Your task to perform on an android device: Open Wikipedia Image 0: 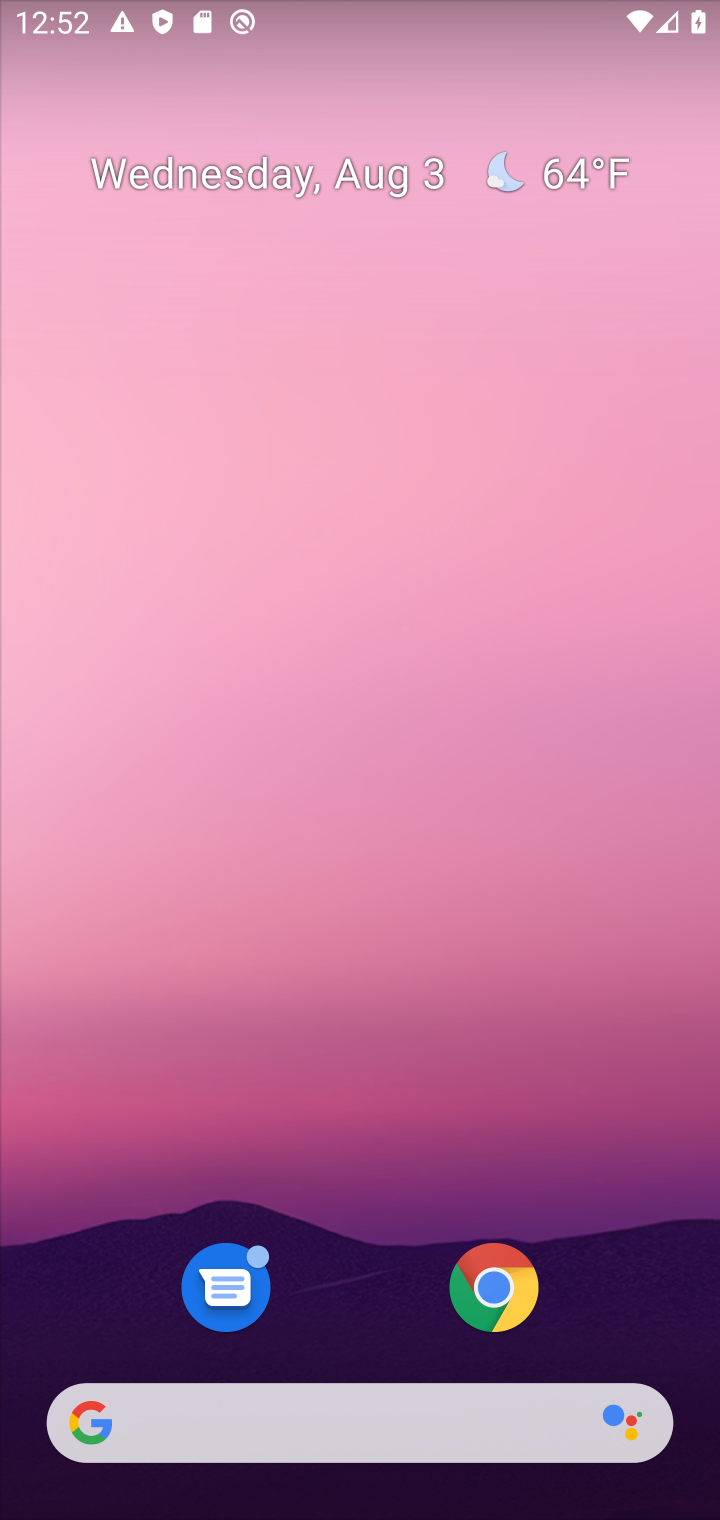
Step 0: drag from (383, 1094) to (444, 184)
Your task to perform on an android device: Open Wikipedia Image 1: 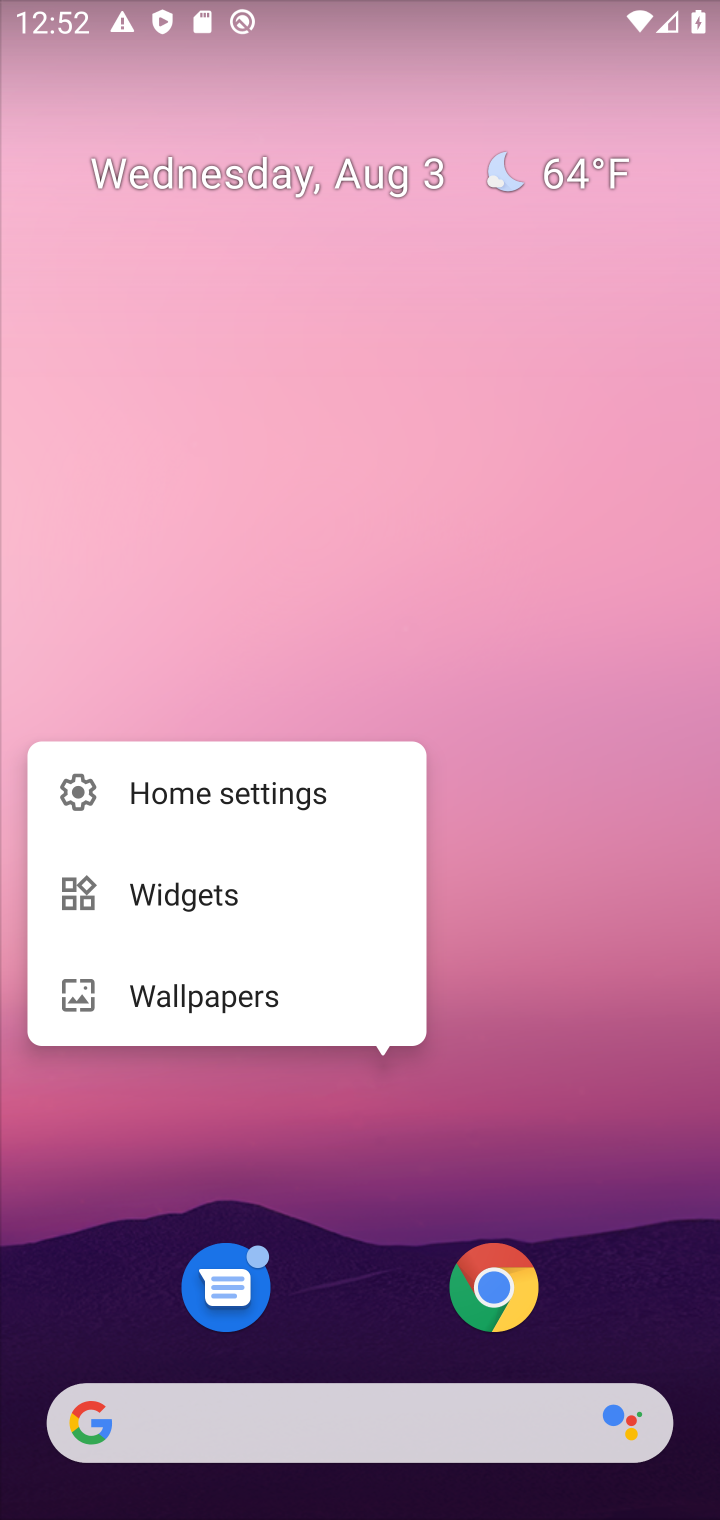
Step 1: click (555, 983)
Your task to perform on an android device: Open Wikipedia Image 2: 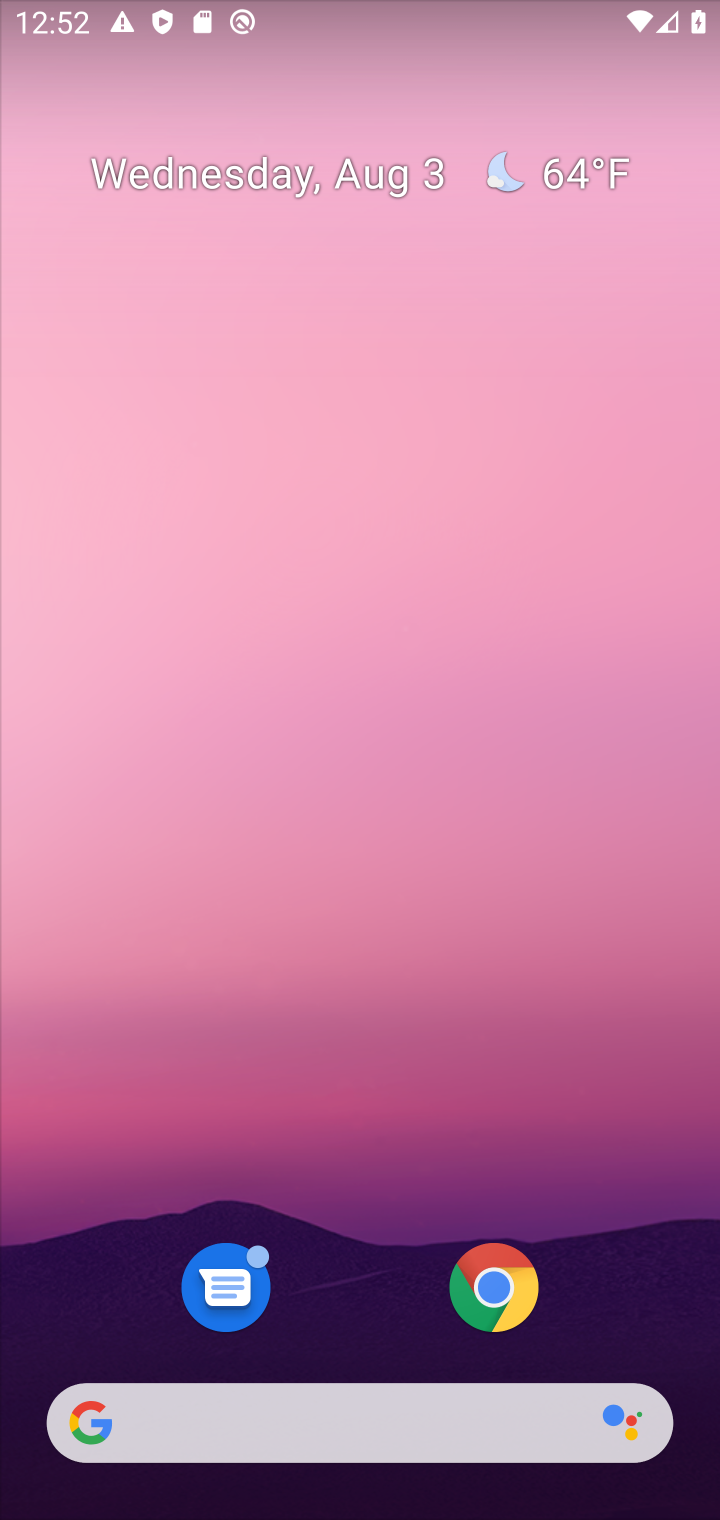
Step 2: drag from (334, 1149) to (360, 144)
Your task to perform on an android device: Open Wikipedia Image 3: 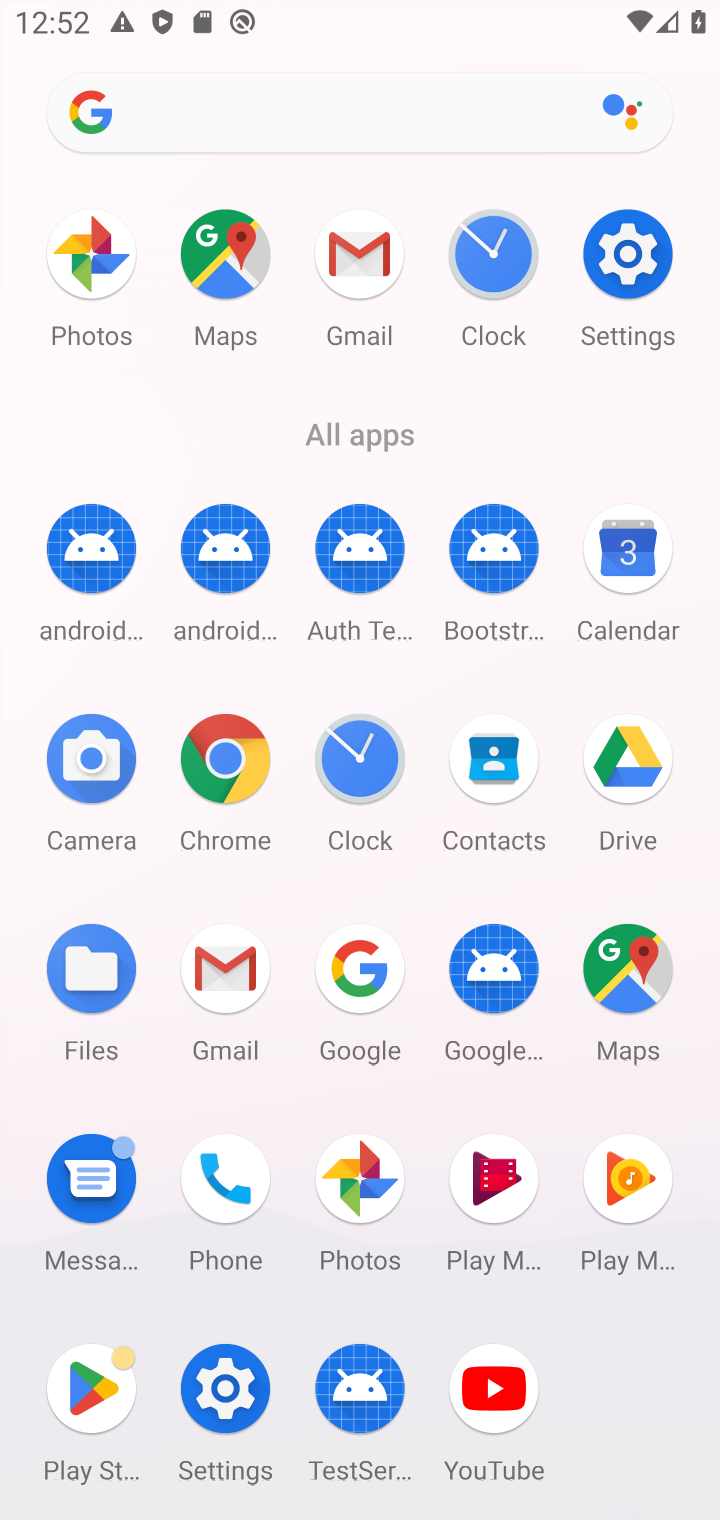
Step 3: click (220, 767)
Your task to perform on an android device: Open Wikipedia Image 4: 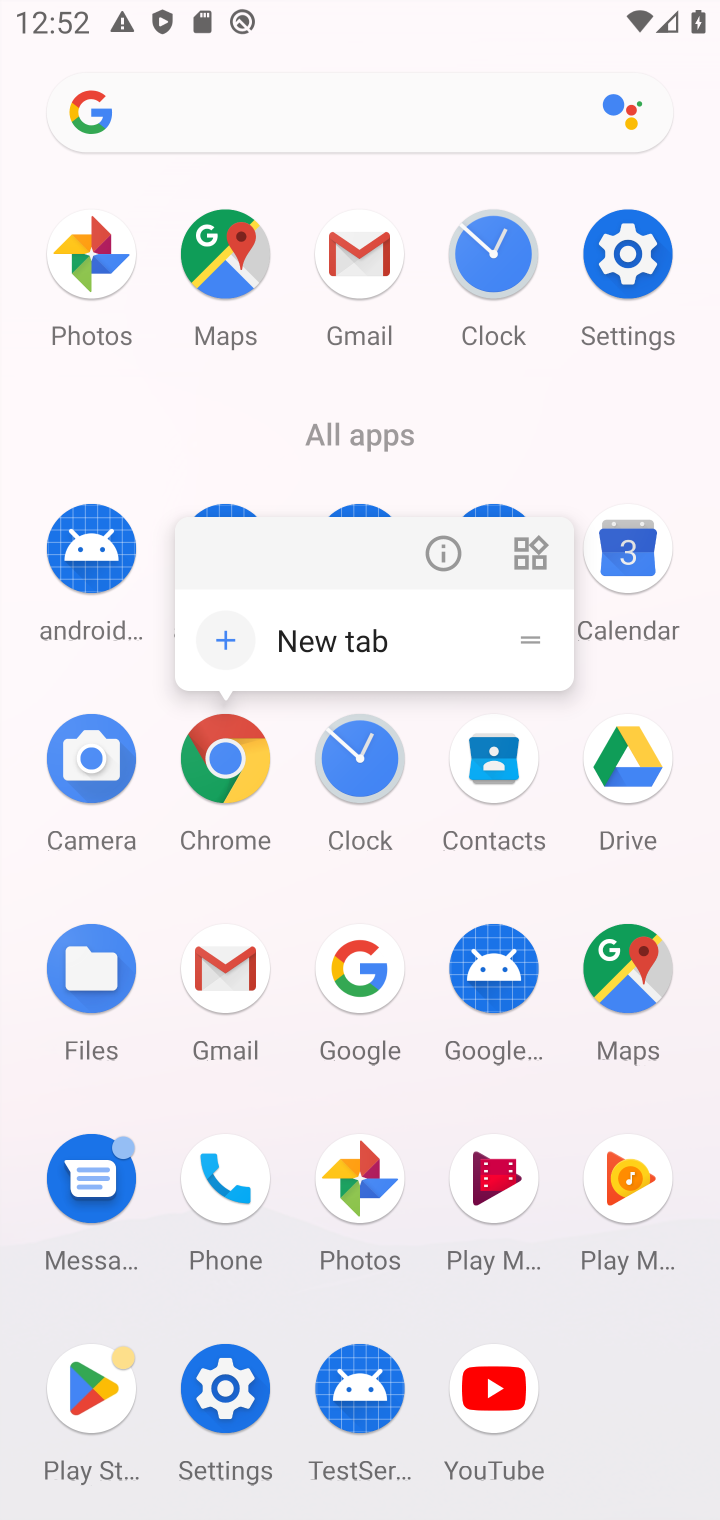
Step 4: click (255, 762)
Your task to perform on an android device: Open Wikipedia Image 5: 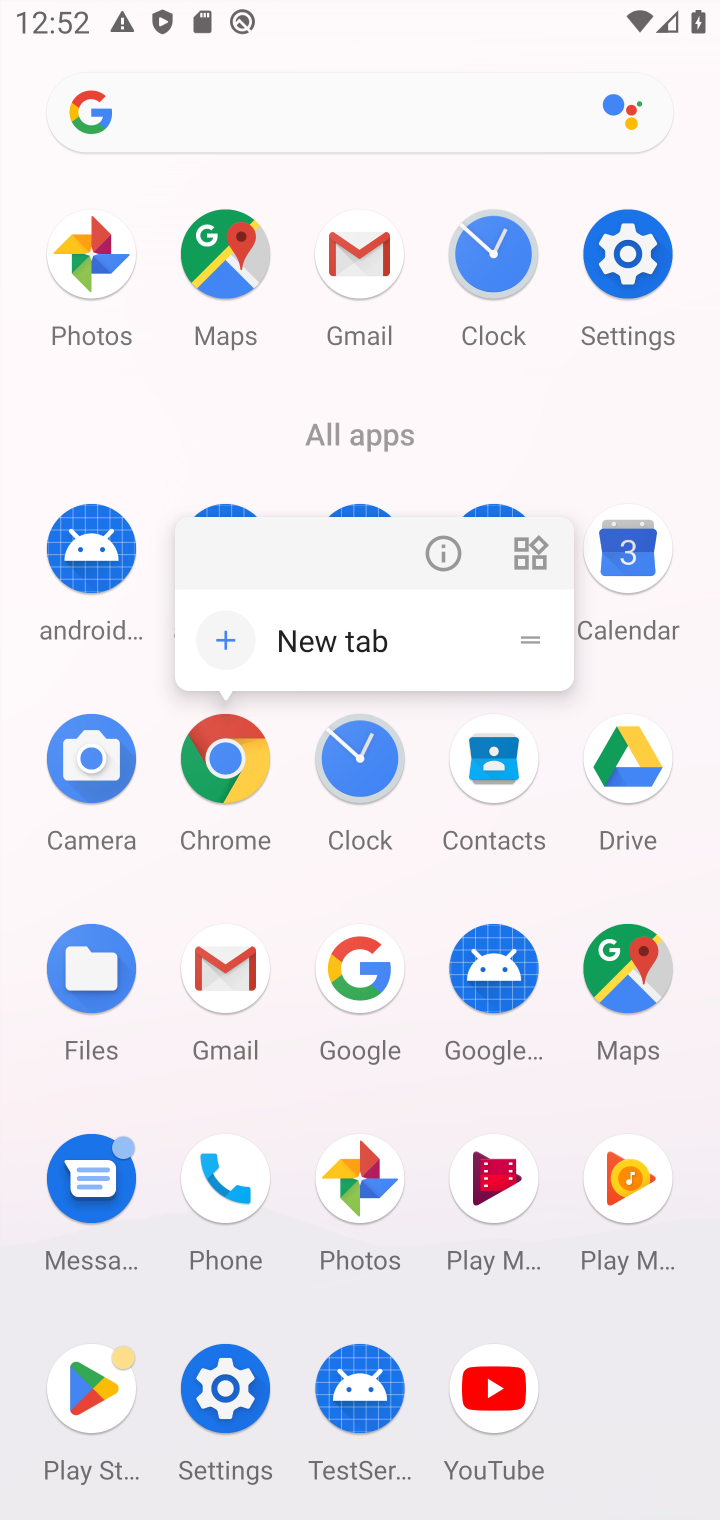
Step 5: click (236, 777)
Your task to perform on an android device: Open Wikipedia Image 6: 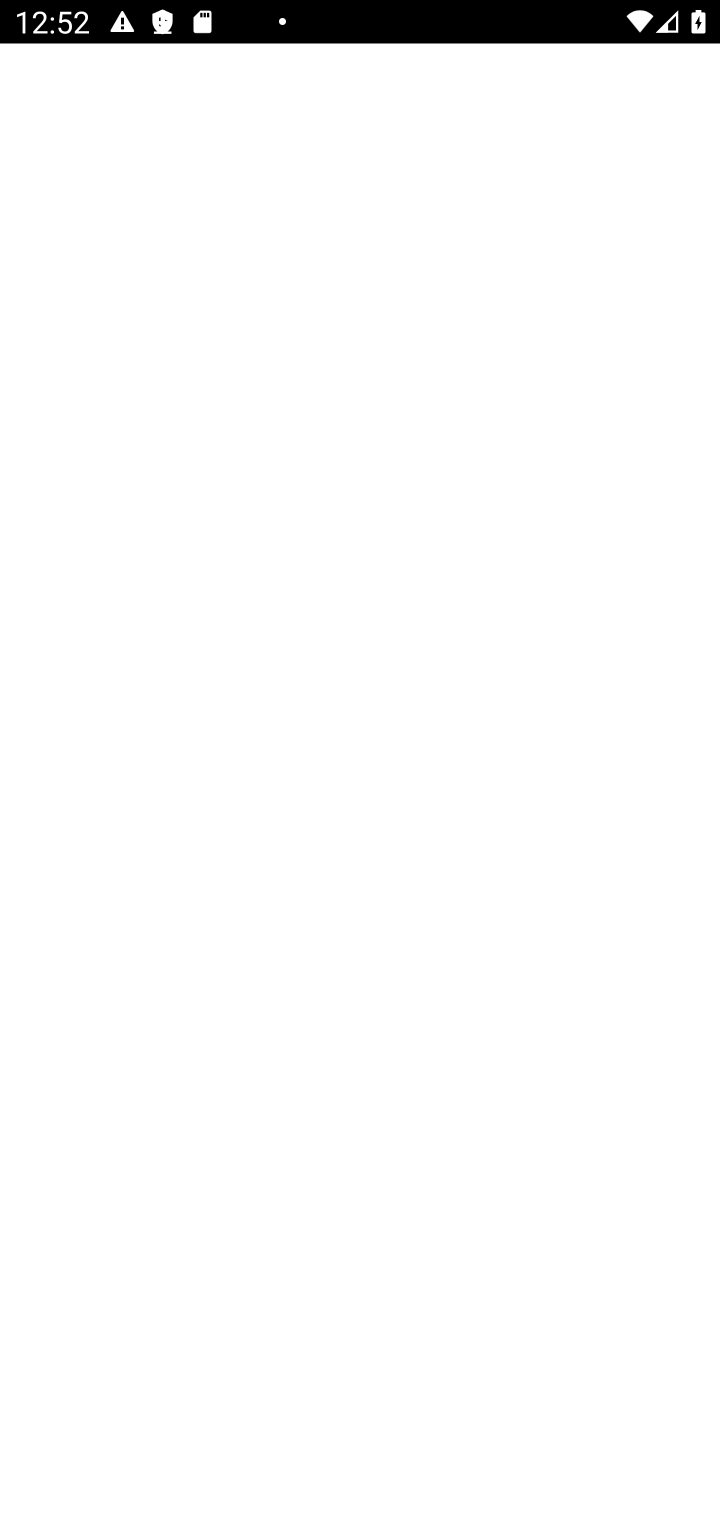
Step 6: click (234, 761)
Your task to perform on an android device: Open Wikipedia Image 7: 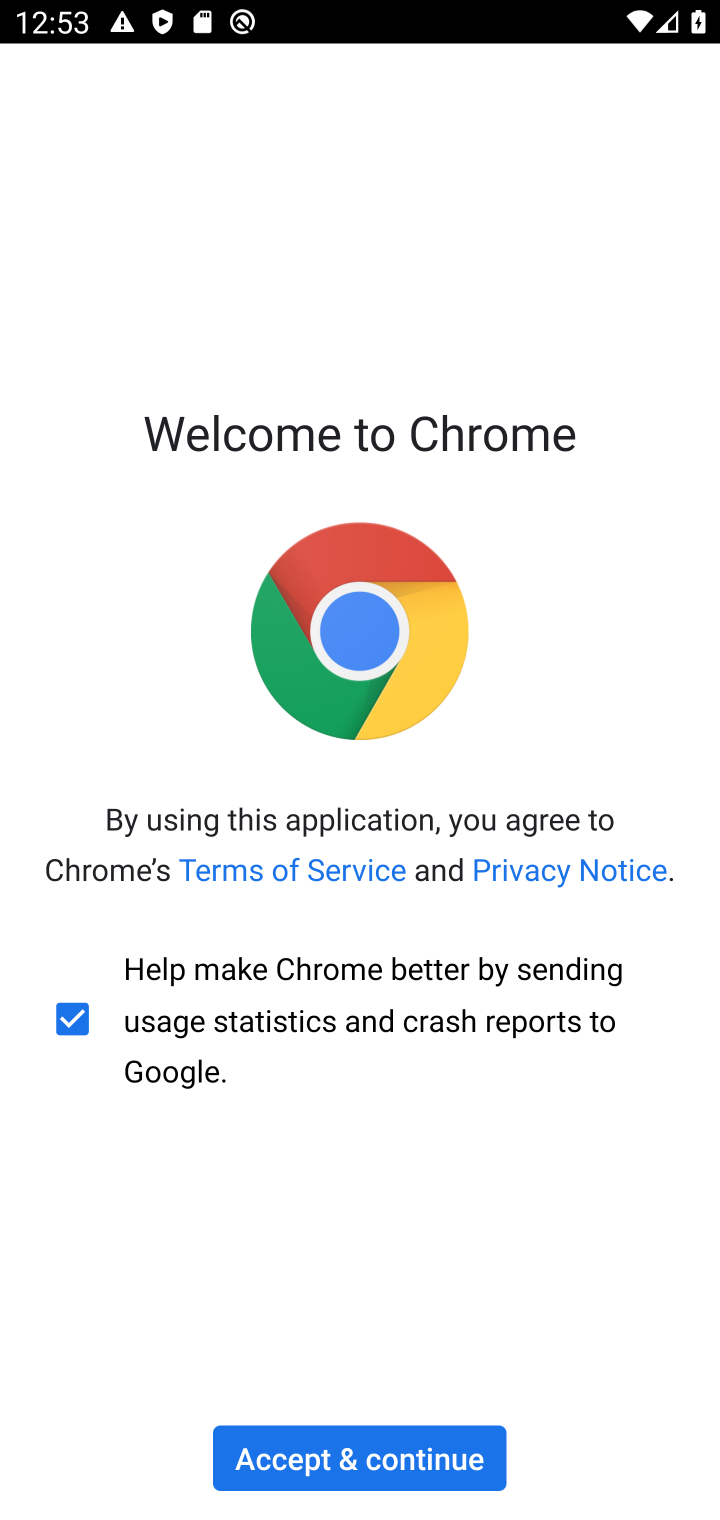
Step 7: click (341, 1471)
Your task to perform on an android device: Open Wikipedia Image 8: 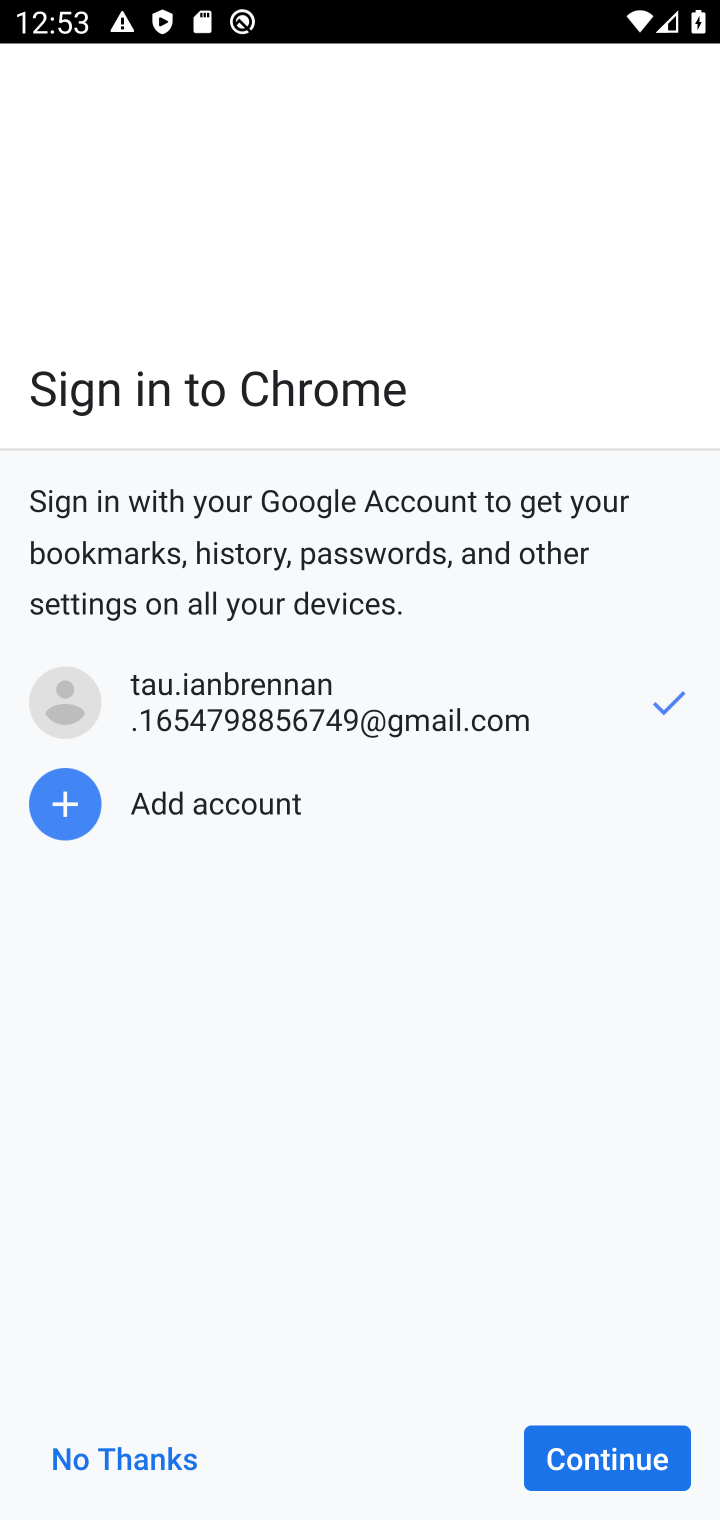
Step 8: click (606, 1452)
Your task to perform on an android device: Open Wikipedia Image 9: 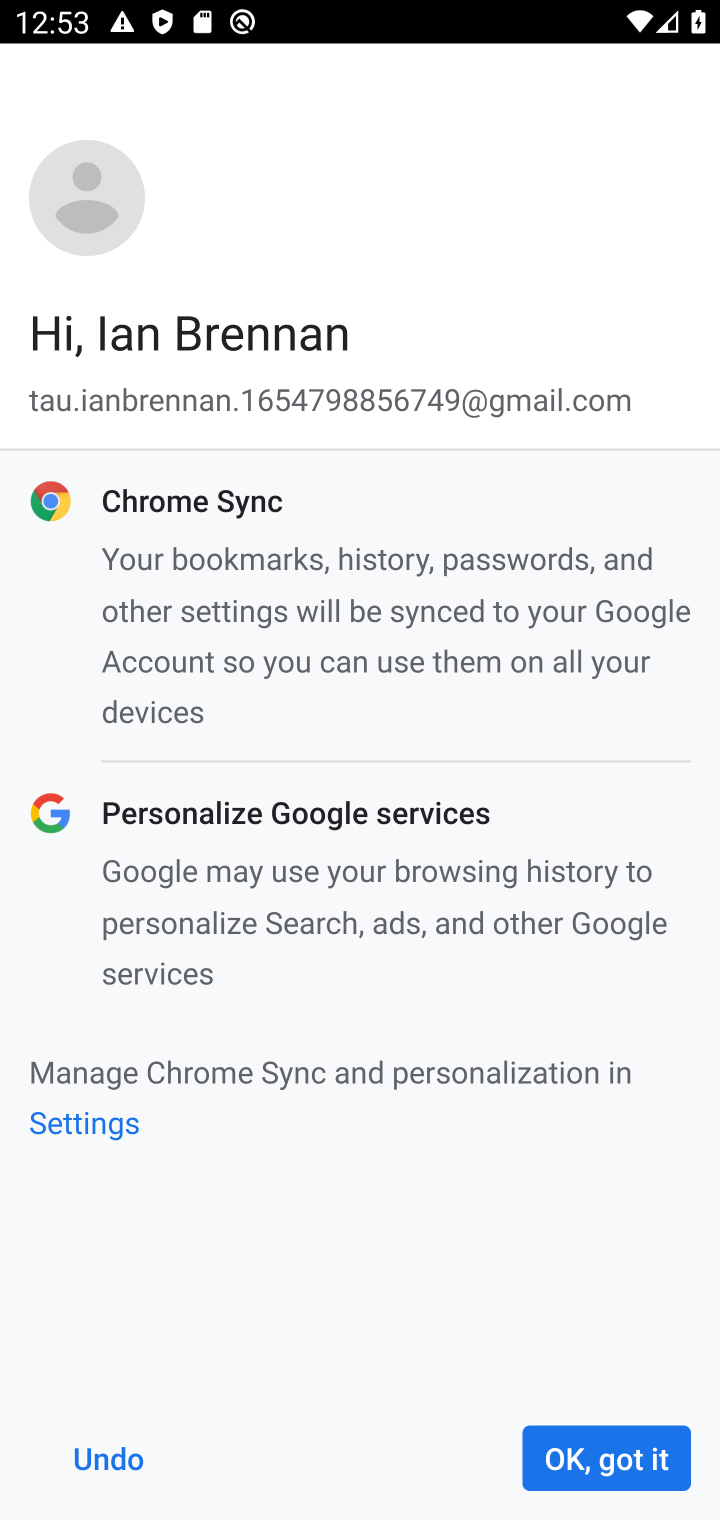
Step 9: click (601, 1469)
Your task to perform on an android device: Open Wikipedia Image 10: 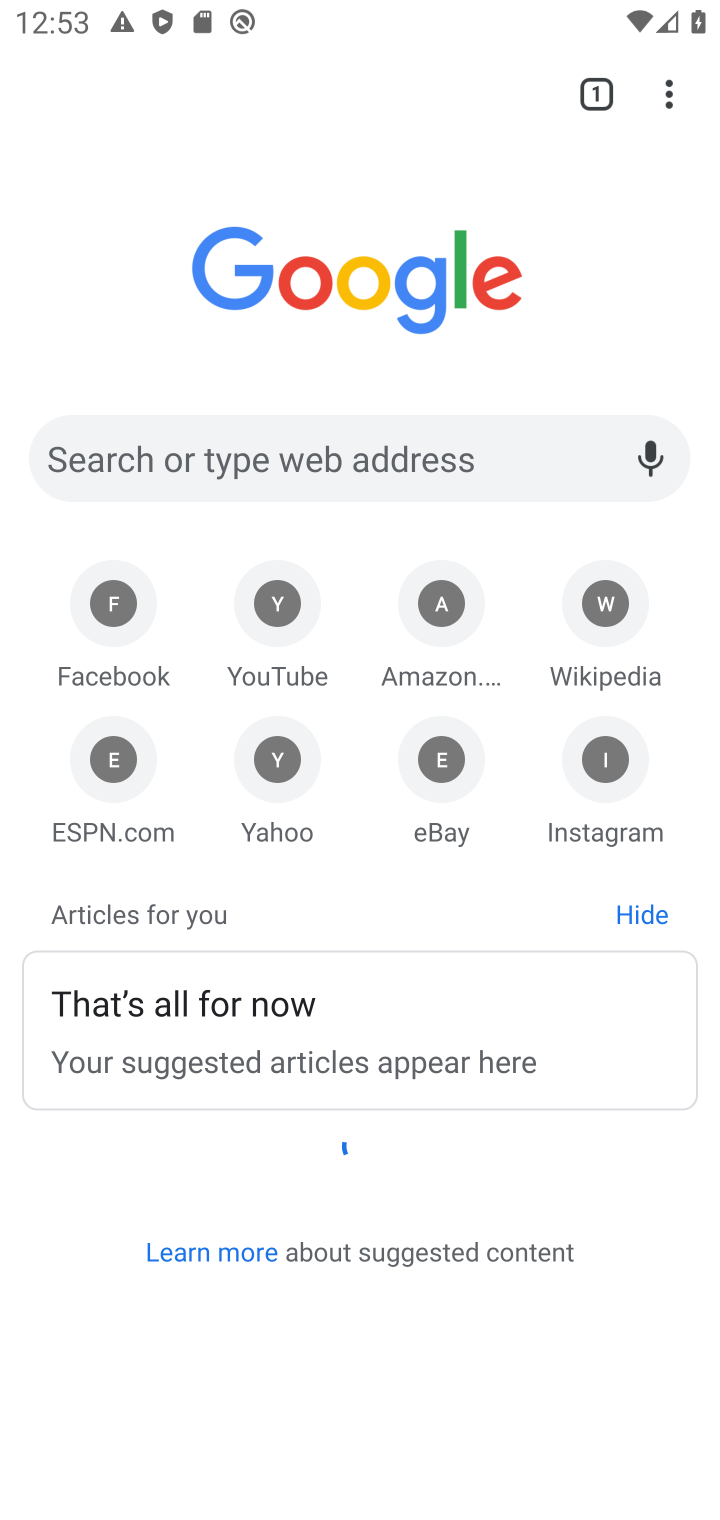
Step 10: click (320, 457)
Your task to perform on an android device: Open Wikipedia Image 11: 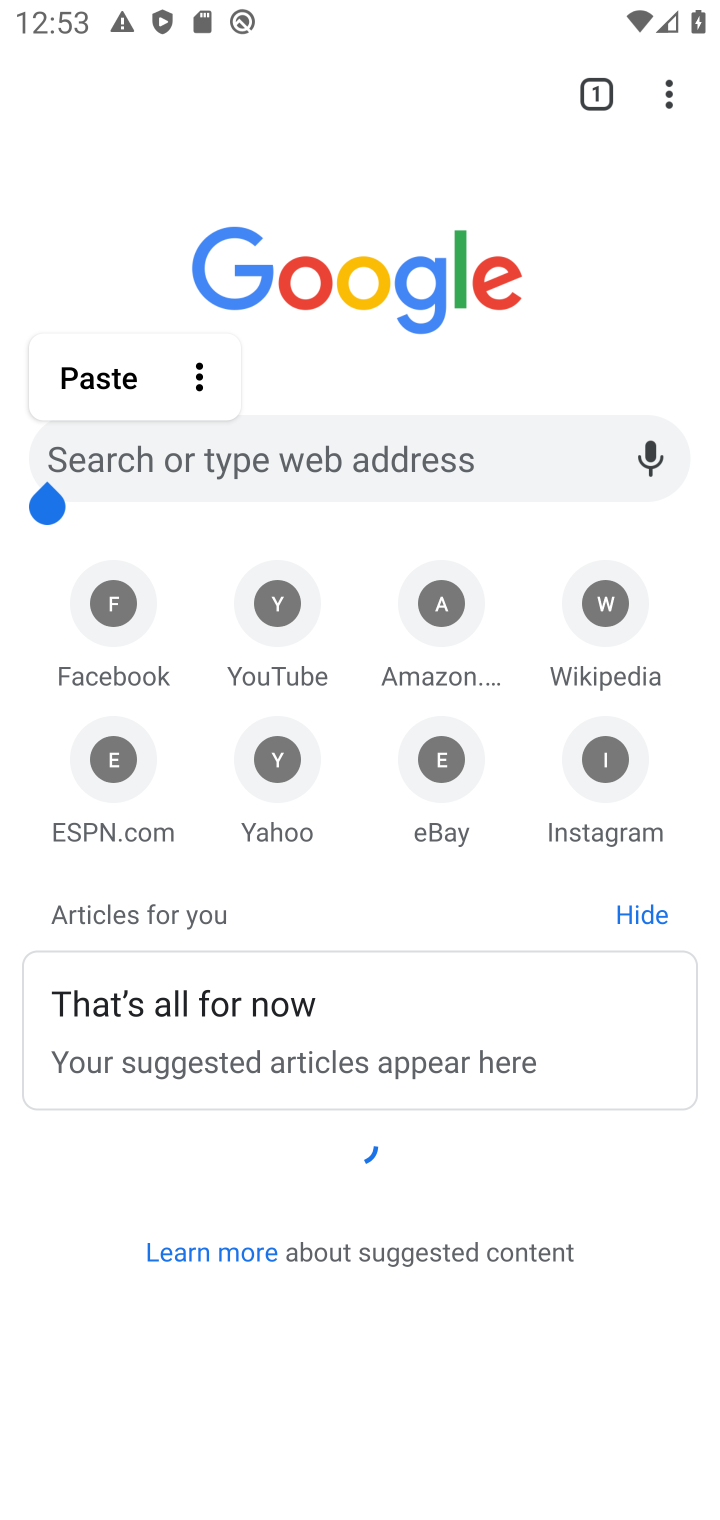
Step 11: click (507, 456)
Your task to perform on an android device: Open Wikipedia Image 12: 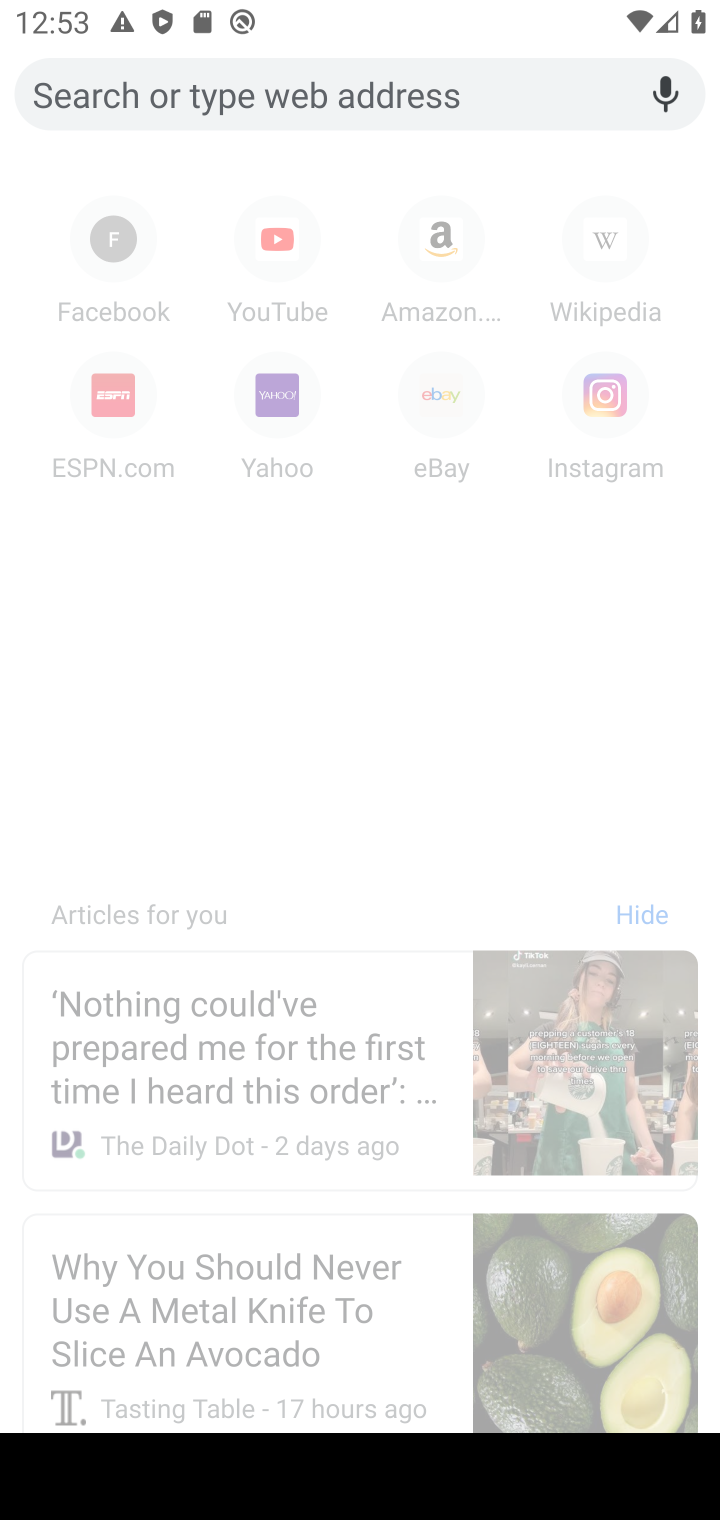
Step 12: type "wikipedia"
Your task to perform on an android device: Open Wikipedia Image 13: 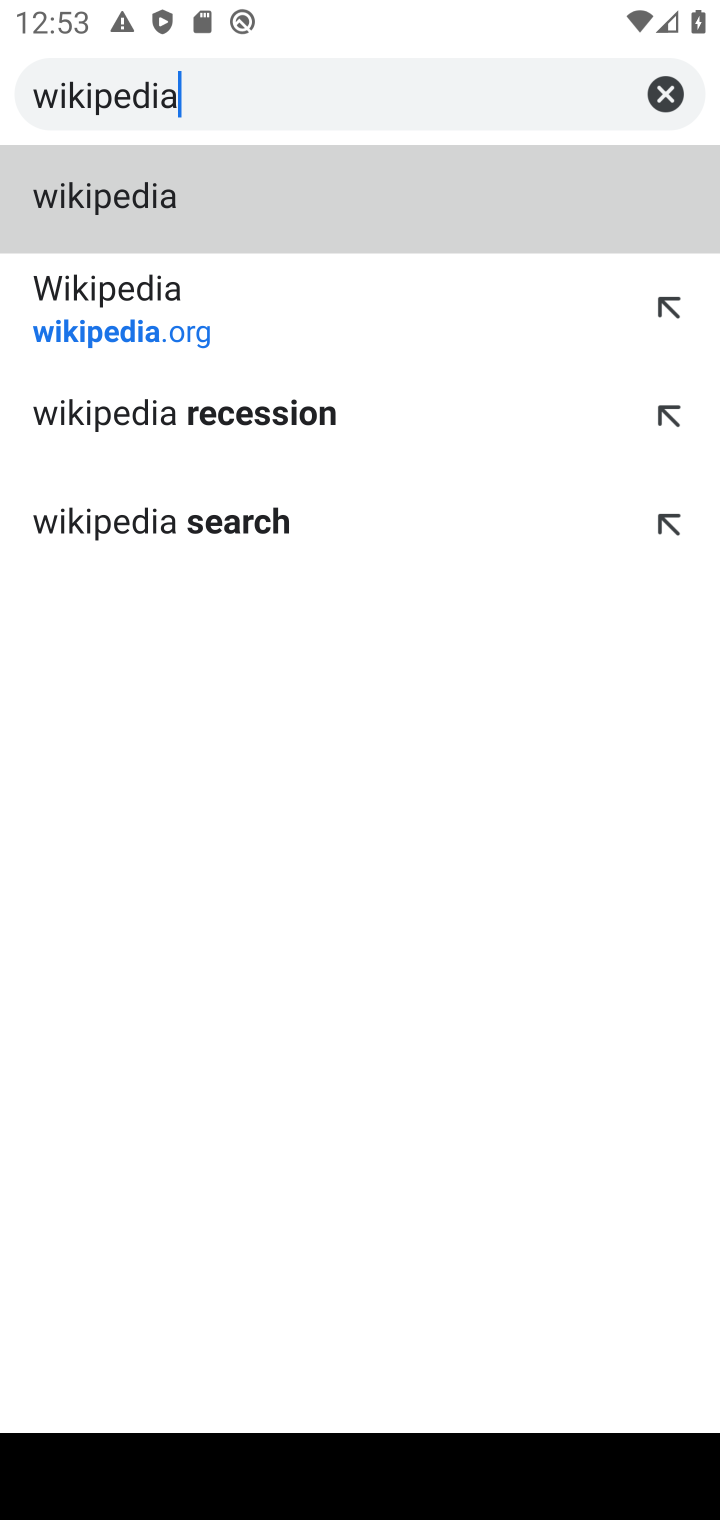
Step 13: click (375, 203)
Your task to perform on an android device: Open Wikipedia Image 14: 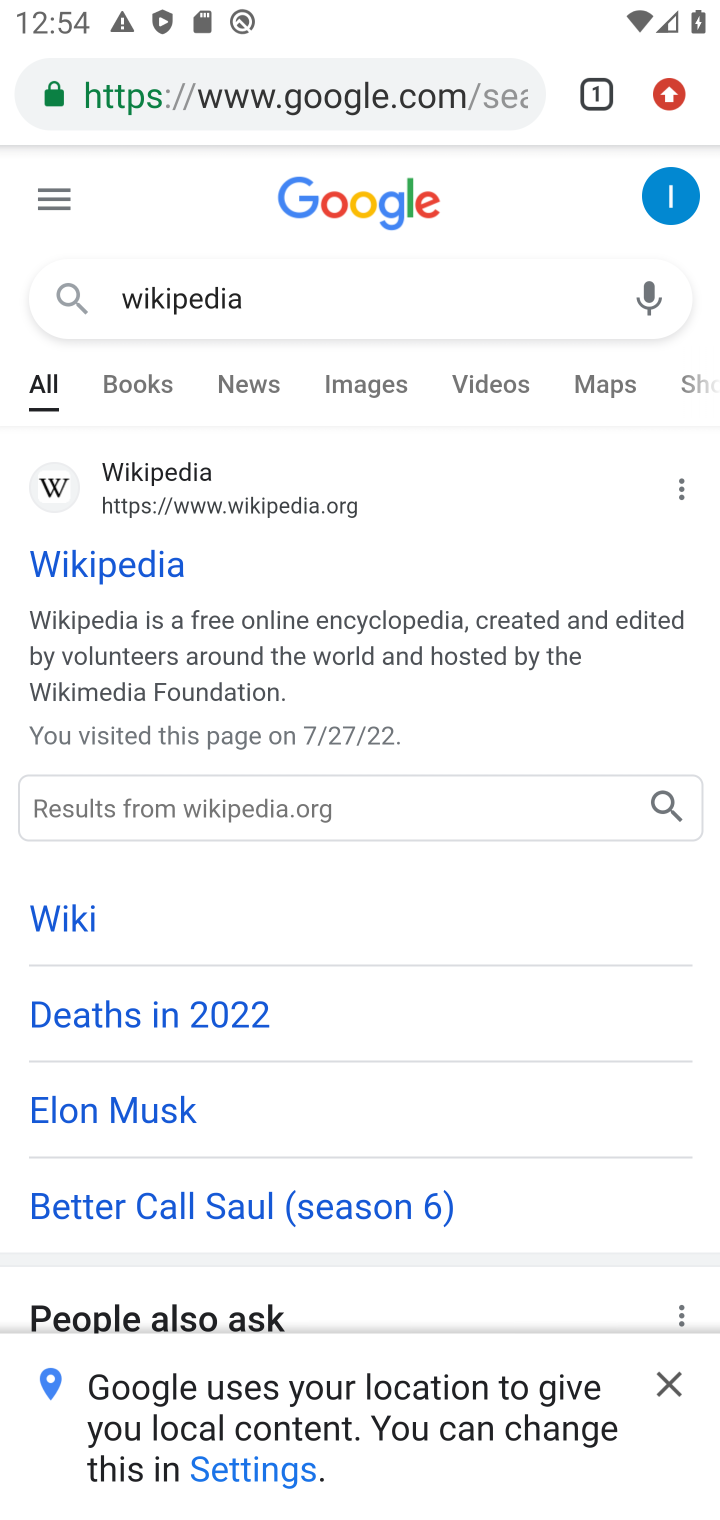
Step 14: task complete